Your task to perform on an android device: search for starred emails in the gmail app Image 0: 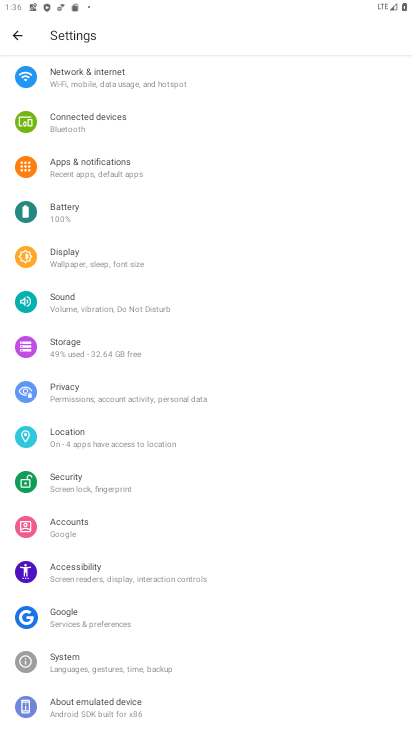
Step 0: press home button
Your task to perform on an android device: search for starred emails in the gmail app Image 1: 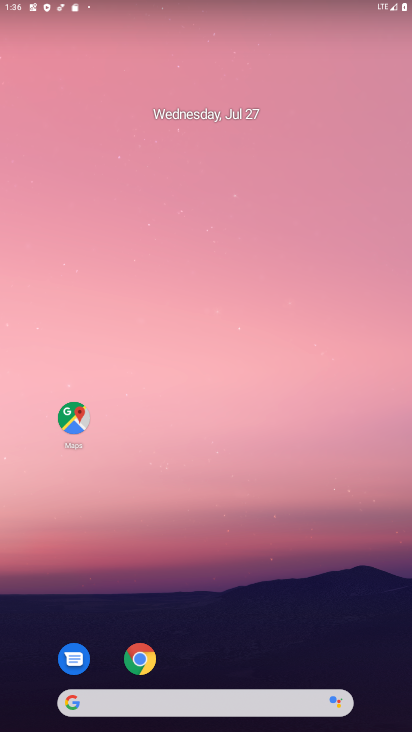
Step 1: drag from (226, 458) to (228, 107)
Your task to perform on an android device: search for starred emails in the gmail app Image 2: 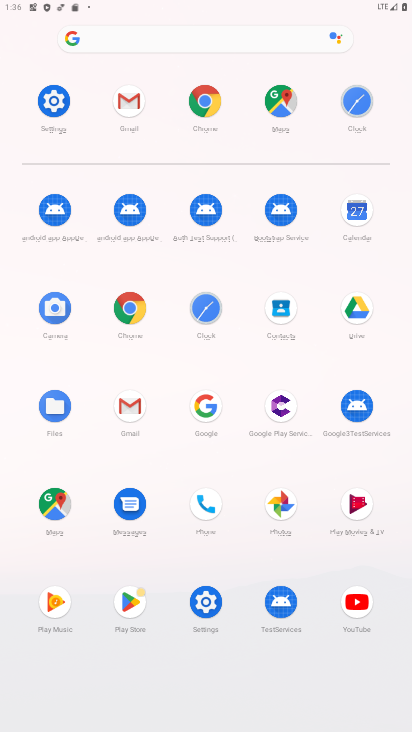
Step 2: click (127, 407)
Your task to perform on an android device: search for starred emails in the gmail app Image 3: 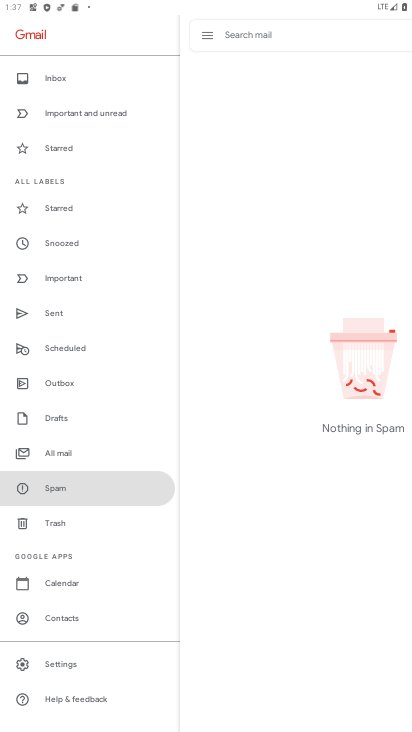
Step 3: click (65, 204)
Your task to perform on an android device: search for starred emails in the gmail app Image 4: 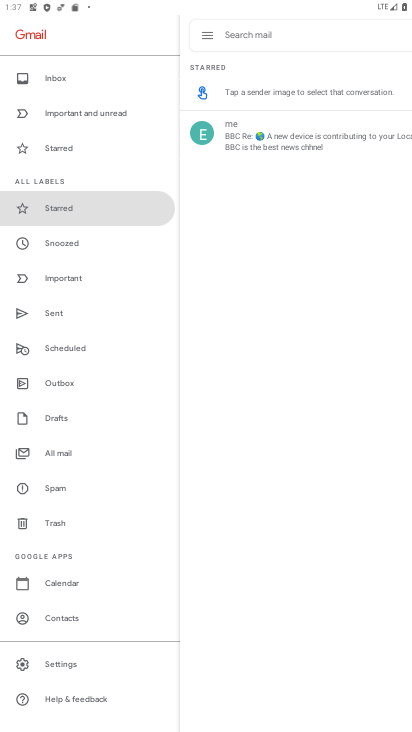
Step 4: task complete